Your task to perform on an android device: turn off priority inbox in the gmail app Image 0: 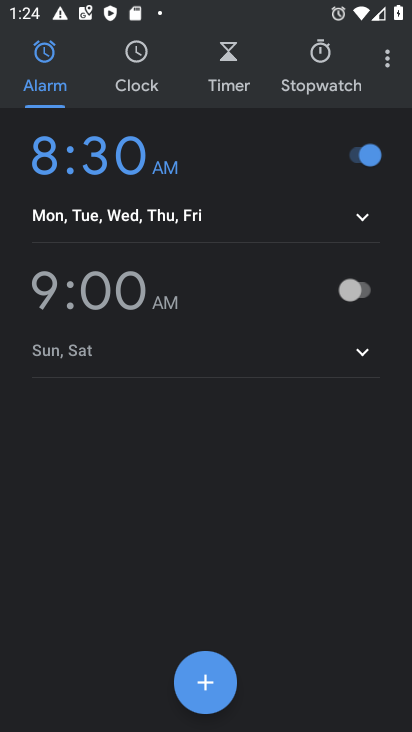
Step 0: press home button
Your task to perform on an android device: turn off priority inbox in the gmail app Image 1: 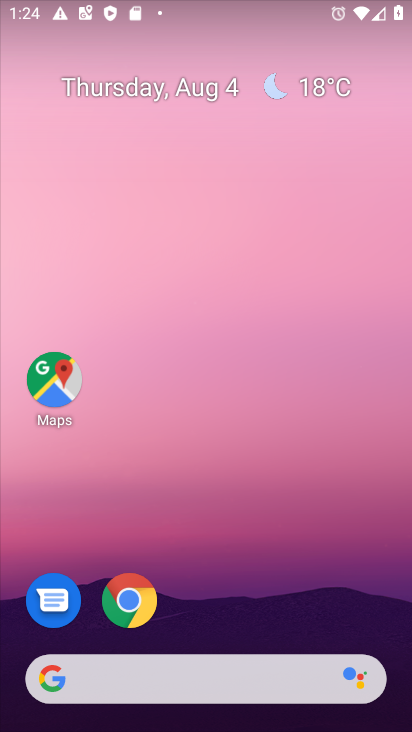
Step 1: drag from (163, 688) to (358, 138)
Your task to perform on an android device: turn off priority inbox in the gmail app Image 2: 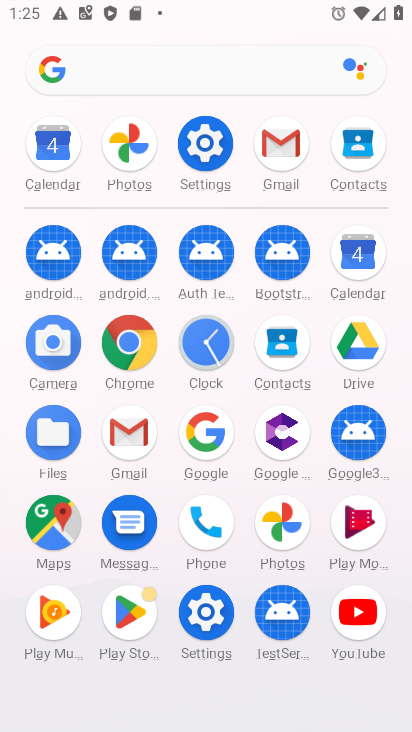
Step 2: click (293, 139)
Your task to perform on an android device: turn off priority inbox in the gmail app Image 3: 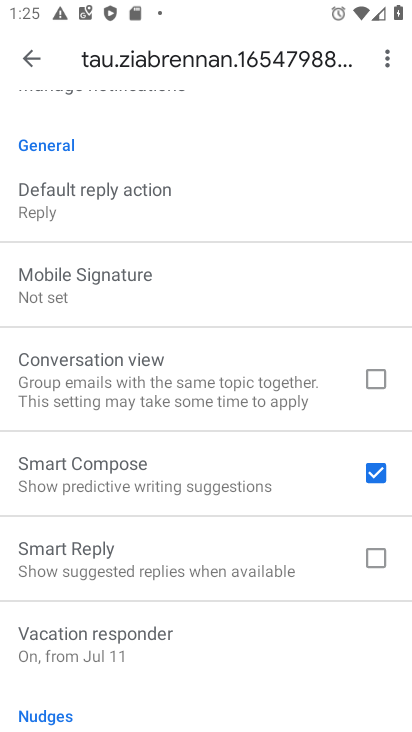
Step 3: drag from (261, 154) to (238, 547)
Your task to perform on an android device: turn off priority inbox in the gmail app Image 4: 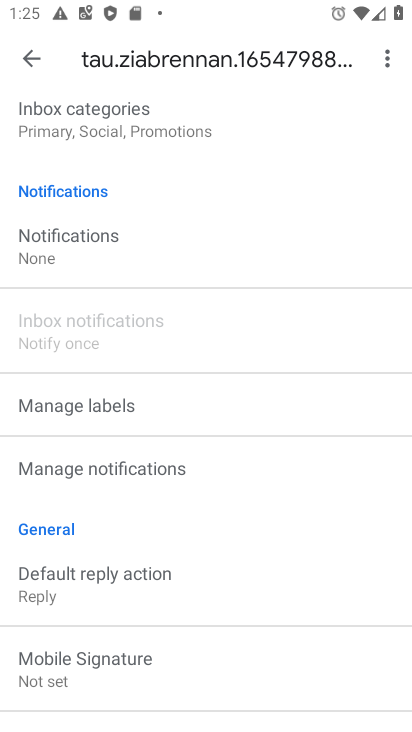
Step 4: drag from (241, 185) to (253, 543)
Your task to perform on an android device: turn off priority inbox in the gmail app Image 5: 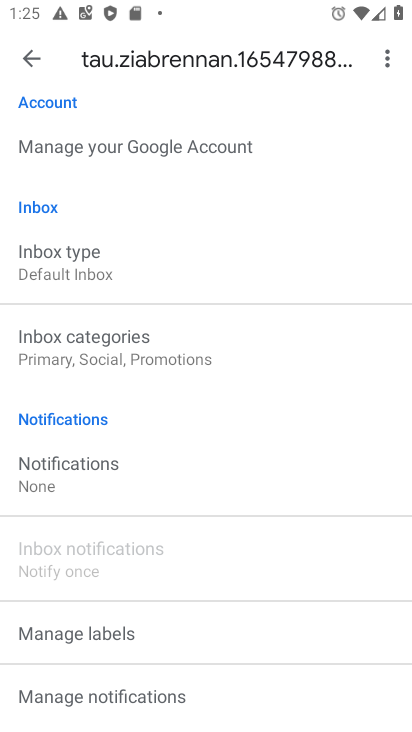
Step 5: click (65, 254)
Your task to perform on an android device: turn off priority inbox in the gmail app Image 6: 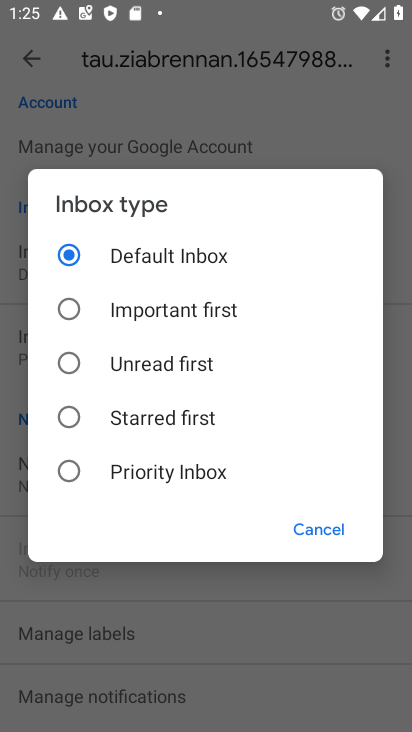
Step 6: task complete